Your task to perform on an android device: Turn on the flashlight Image 0: 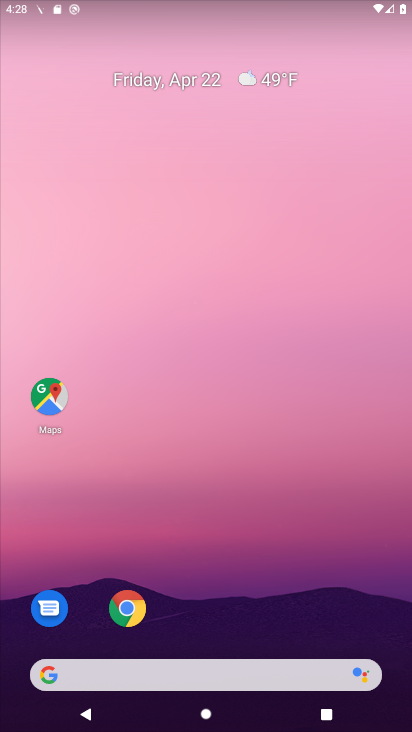
Step 0: drag from (191, 628) to (282, 104)
Your task to perform on an android device: Turn on the flashlight Image 1: 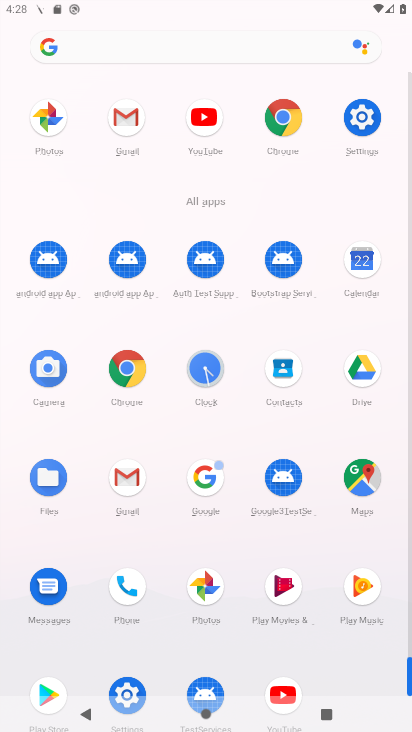
Step 1: task complete